Your task to perform on an android device: Open network settings Image 0: 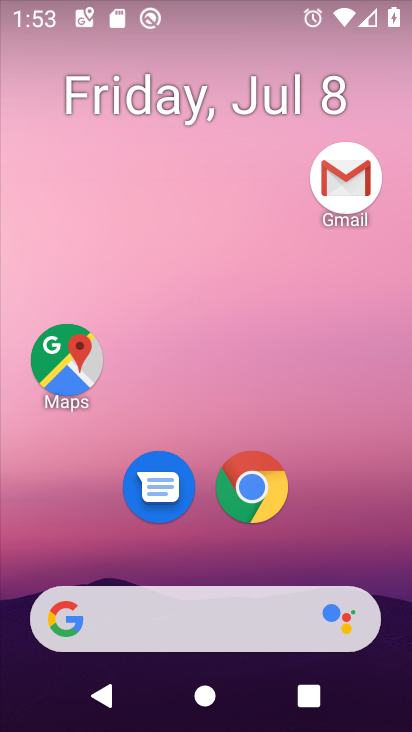
Step 0: drag from (349, 493) to (360, 152)
Your task to perform on an android device: Open network settings Image 1: 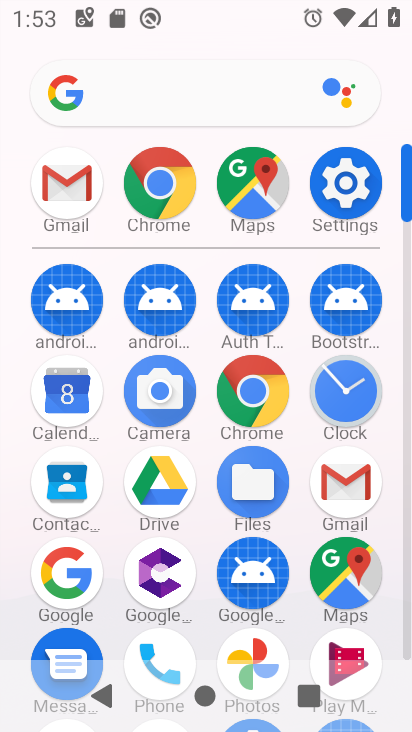
Step 1: click (359, 198)
Your task to perform on an android device: Open network settings Image 2: 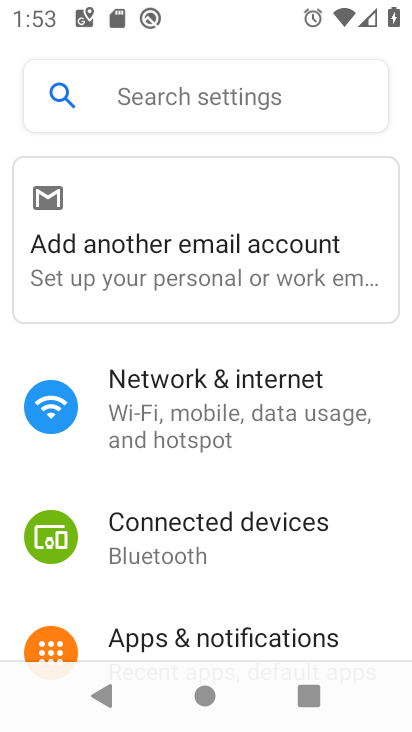
Step 2: drag from (370, 561) to (378, 439)
Your task to perform on an android device: Open network settings Image 3: 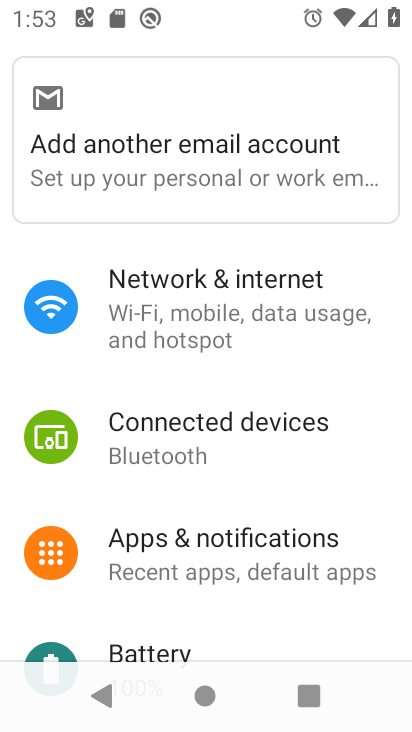
Step 3: drag from (385, 590) to (372, 402)
Your task to perform on an android device: Open network settings Image 4: 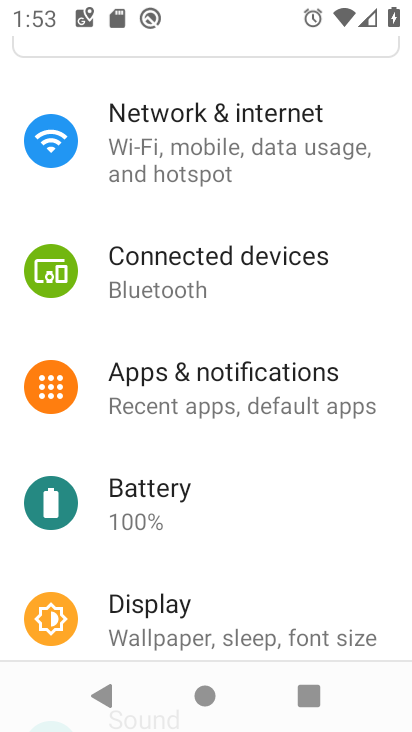
Step 4: drag from (339, 542) to (351, 316)
Your task to perform on an android device: Open network settings Image 5: 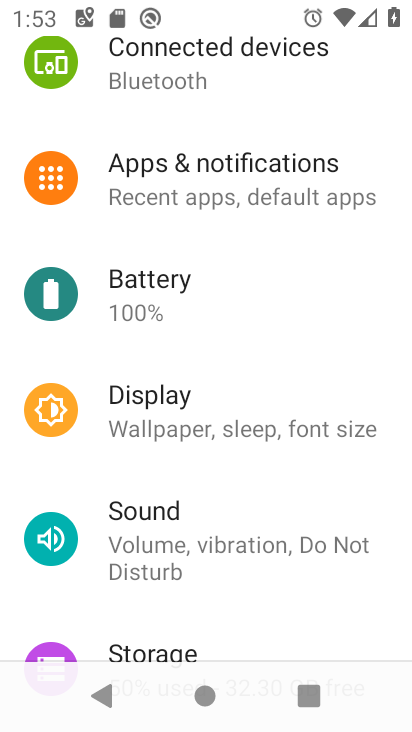
Step 5: drag from (358, 589) to (377, 404)
Your task to perform on an android device: Open network settings Image 6: 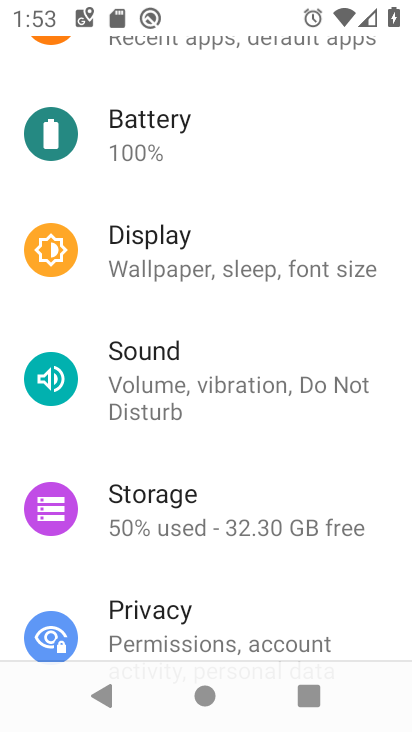
Step 6: drag from (348, 596) to (354, 432)
Your task to perform on an android device: Open network settings Image 7: 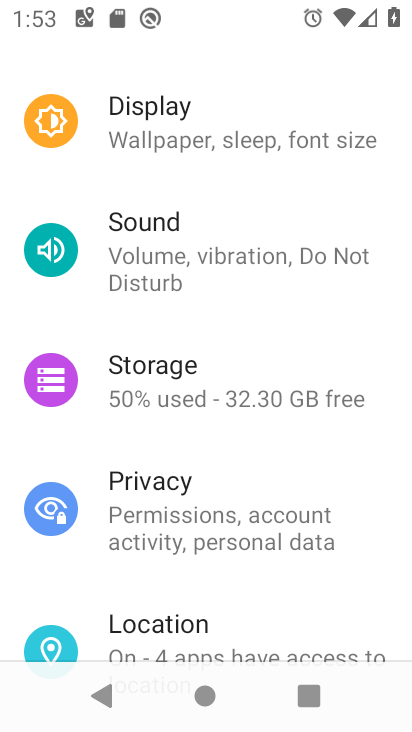
Step 7: drag from (367, 319) to (367, 477)
Your task to perform on an android device: Open network settings Image 8: 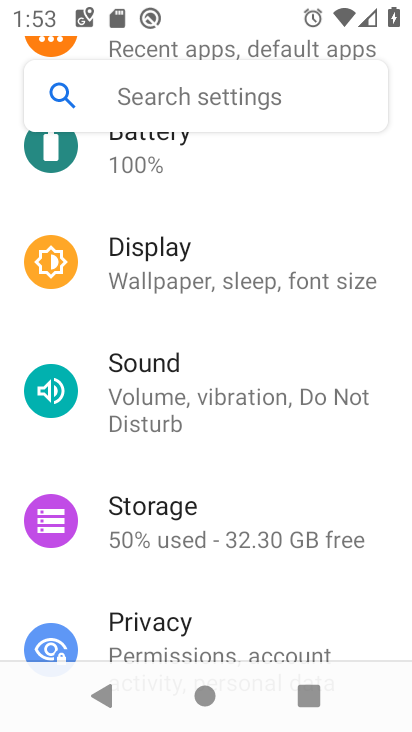
Step 8: drag from (374, 317) to (368, 423)
Your task to perform on an android device: Open network settings Image 9: 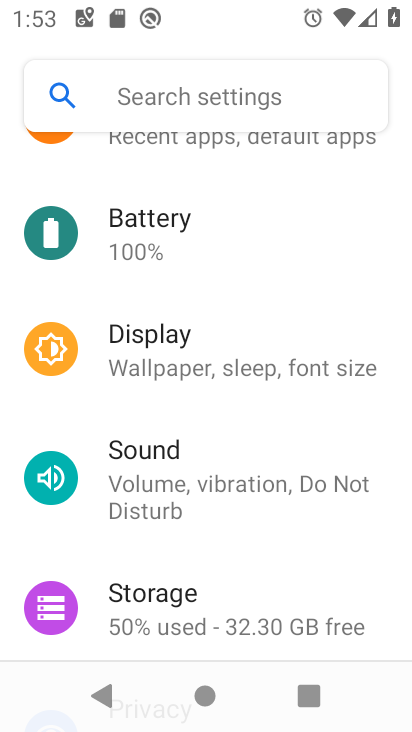
Step 9: drag from (355, 257) to (355, 390)
Your task to perform on an android device: Open network settings Image 10: 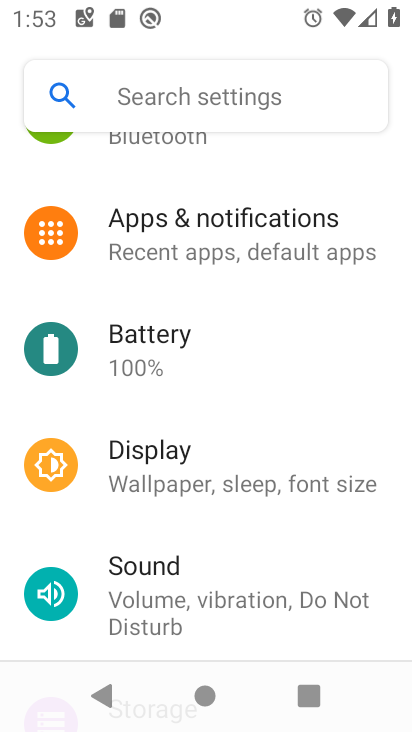
Step 10: drag from (369, 213) to (378, 364)
Your task to perform on an android device: Open network settings Image 11: 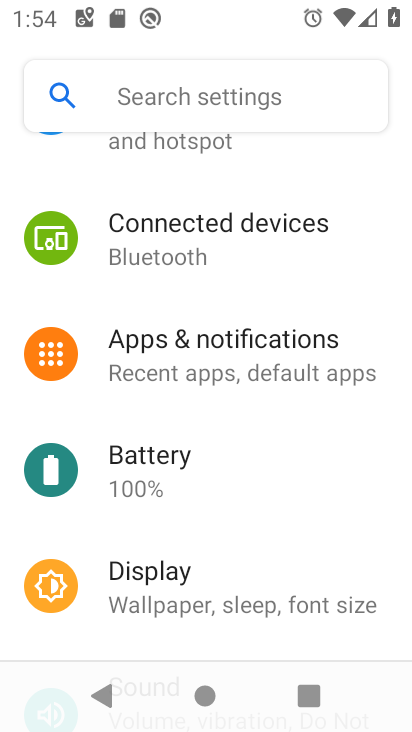
Step 11: drag from (360, 175) to (376, 352)
Your task to perform on an android device: Open network settings Image 12: 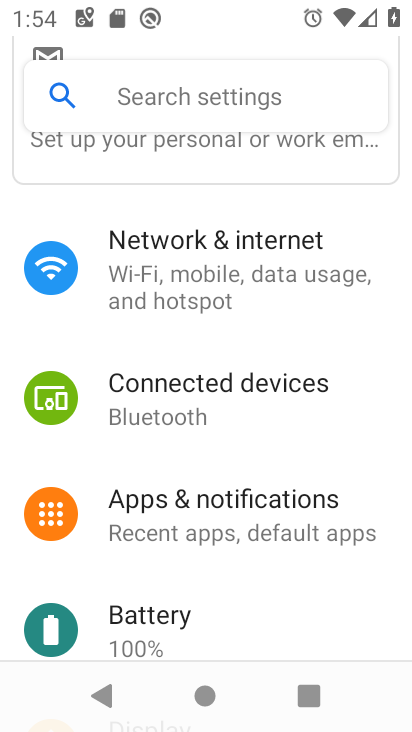
Step 12: click (295, 272)
Your task to perform on an android device: Open network settings Image 13: 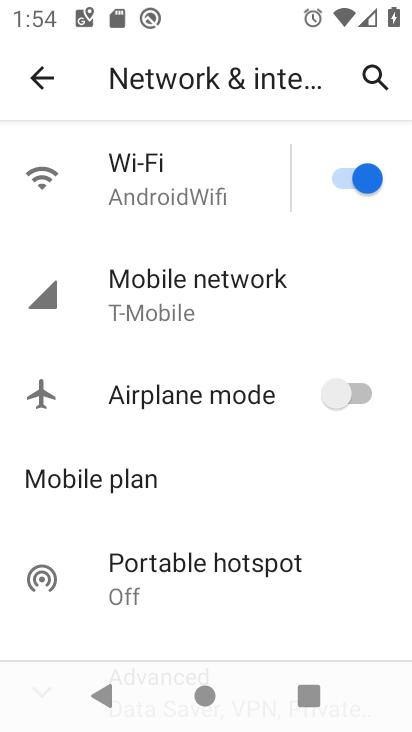
Step 13: task complete